Your task to perform on an android device: Open calendar and show me the fourth week of next month Image 0: 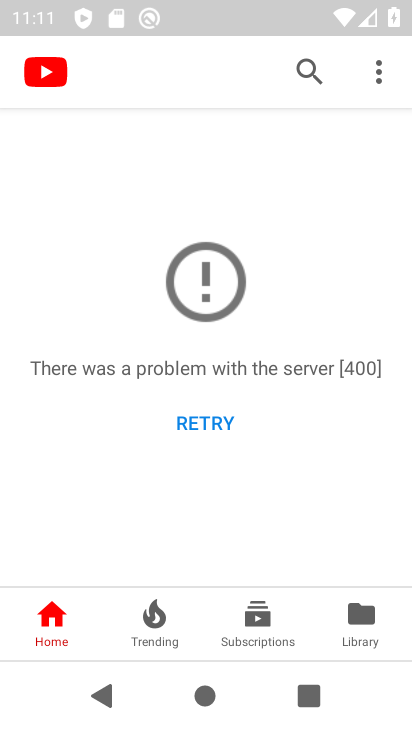
Step 0: press home button
Your task to perform on an android device: Open calendar and show me the fourth week of next month Image 1: 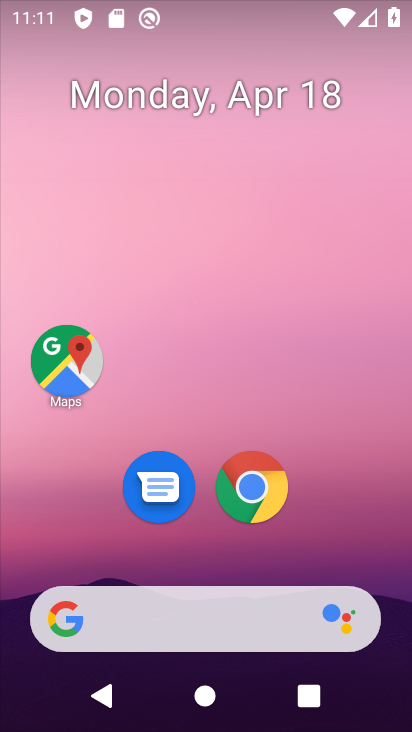
Step 1: drag from (308, 469) to (253, 0)
Your task to perform on an android device: Open calendar and show me the fourth week of next month Image 2: 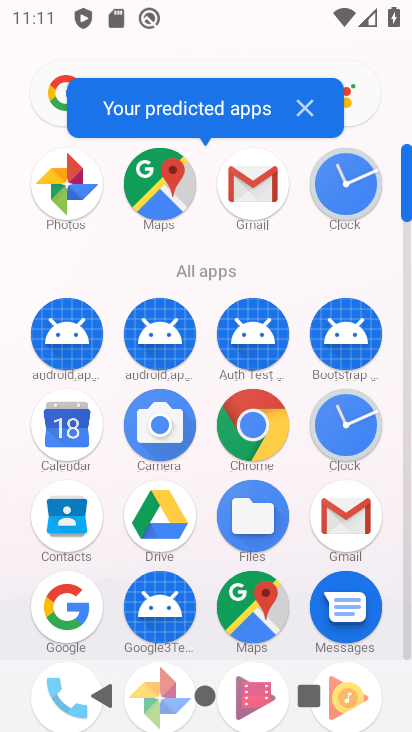
Step 2: click (70, 422)
Your task to perform on an android device: Open calendar and show me the fourth week of next month Image 3: 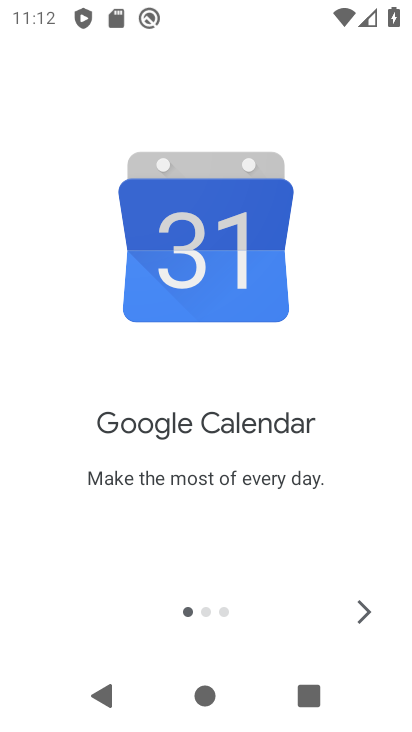
Step 3: click (347, 608)
Your task to perform on an android device: Open calendar and show me the fourth week of next month Image 4: 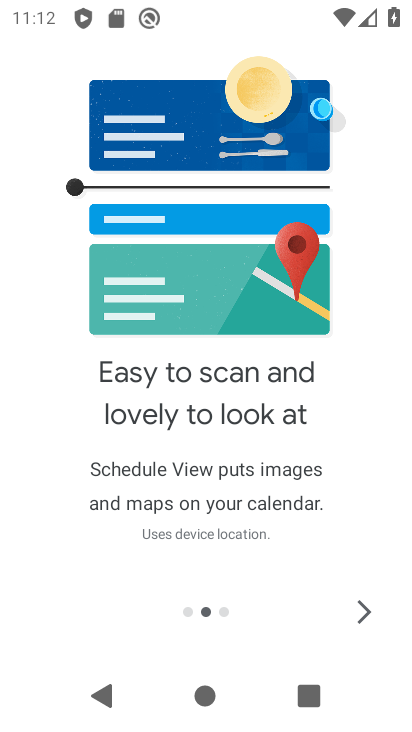
Step 4: drag from (369, 617) to (402, 640)
Your task to perform on an android device: Open calendar and show me the fourth week of next month Image 5: 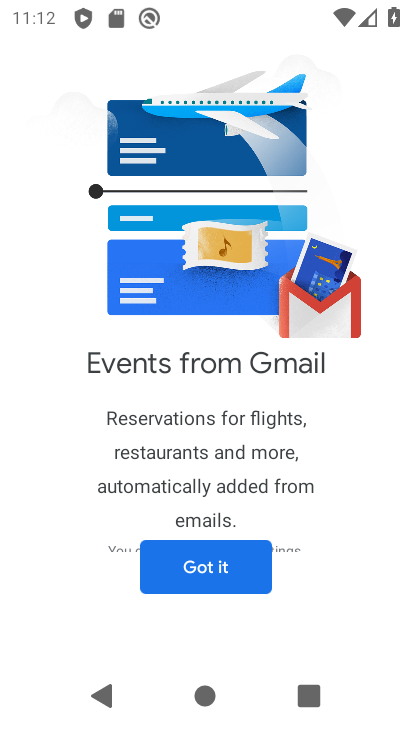
Step 5: click (363, 612)
Your task to perform on an android device: Open calendar and show me the fourth week of next month Image 6: 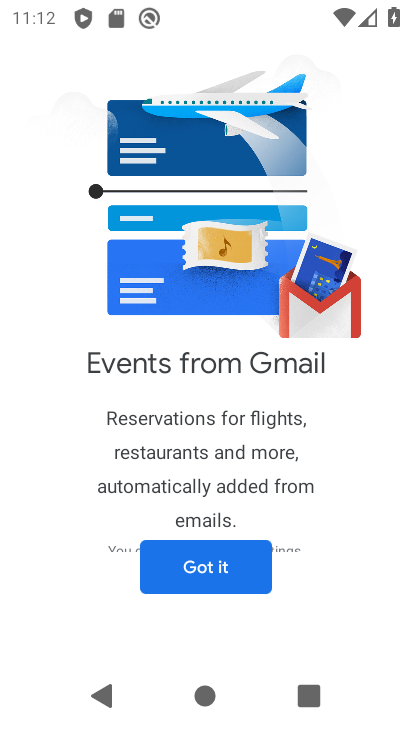
Step 6: click (199, 568)
Your task to perform on an android device: Open calendar and show me the fourth week of next month Image 7: 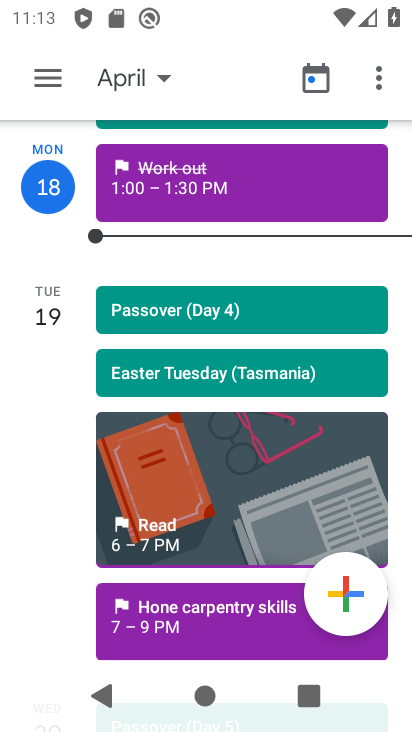
Step 7: click (46, 81)
Your task to perform on an android device: Open calendar and show me the fourth week of next month Image 8: 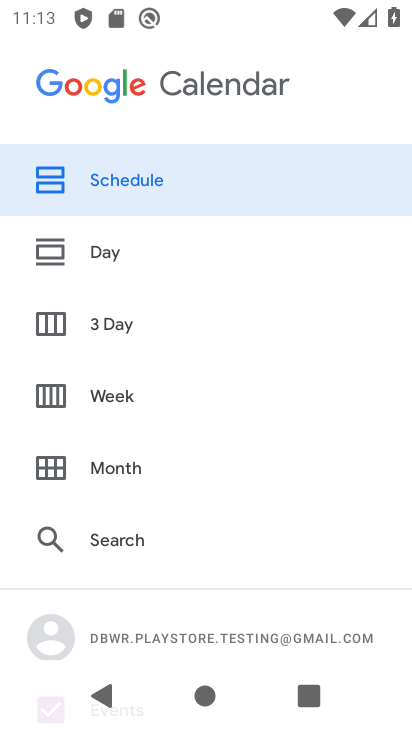
Step 8: click (96, 399)
Your task to perform on an android device: Open calendar and show me the fourth week of next month Image 9: 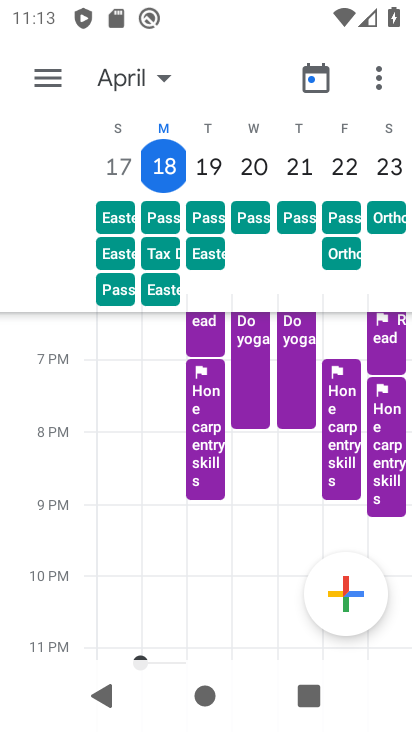
Step 9: click (157, 80)
Your task to perform on an android device: Open calendar and show me the fourth week of next month Image 10: 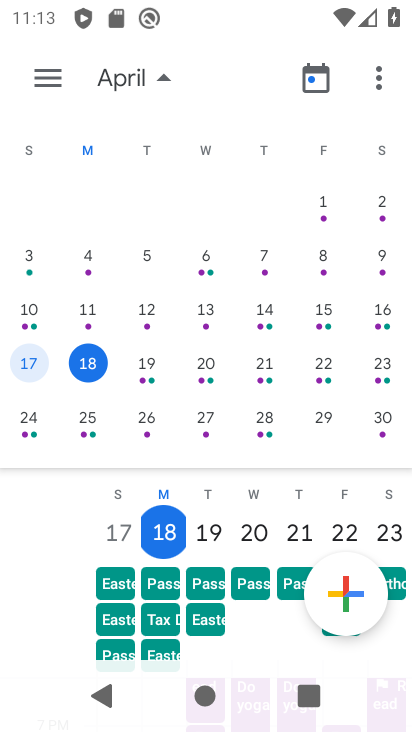
Step 10: drag from (371, 287) to (18, 340)
Your task to perform on an android device: Open calendar and show me the fourth week of next month Image 11: 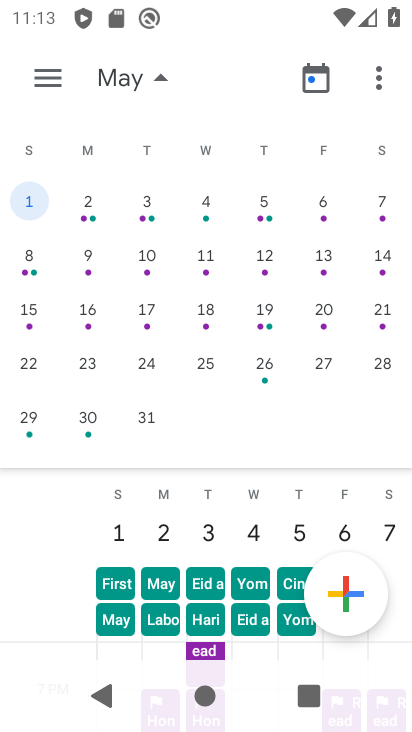
Step 11: click (88, 358)
Your task to perform on an android device: Open calendar and show me the fourth week of next month Image 12: 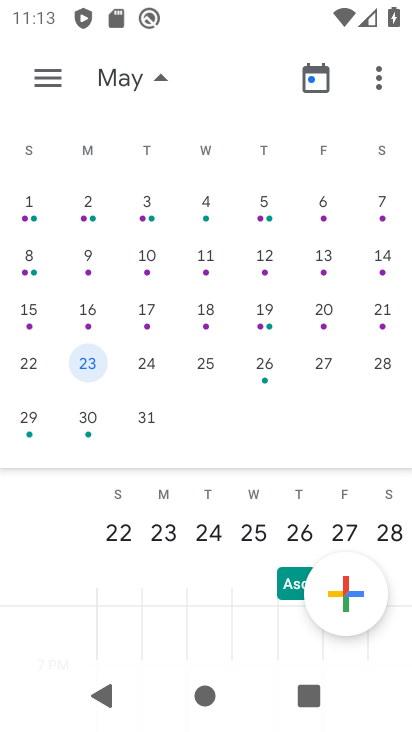
Step 12: task complete